Your task to perform on an android device: Search for seafood restaurants on Google Maps Image 0: 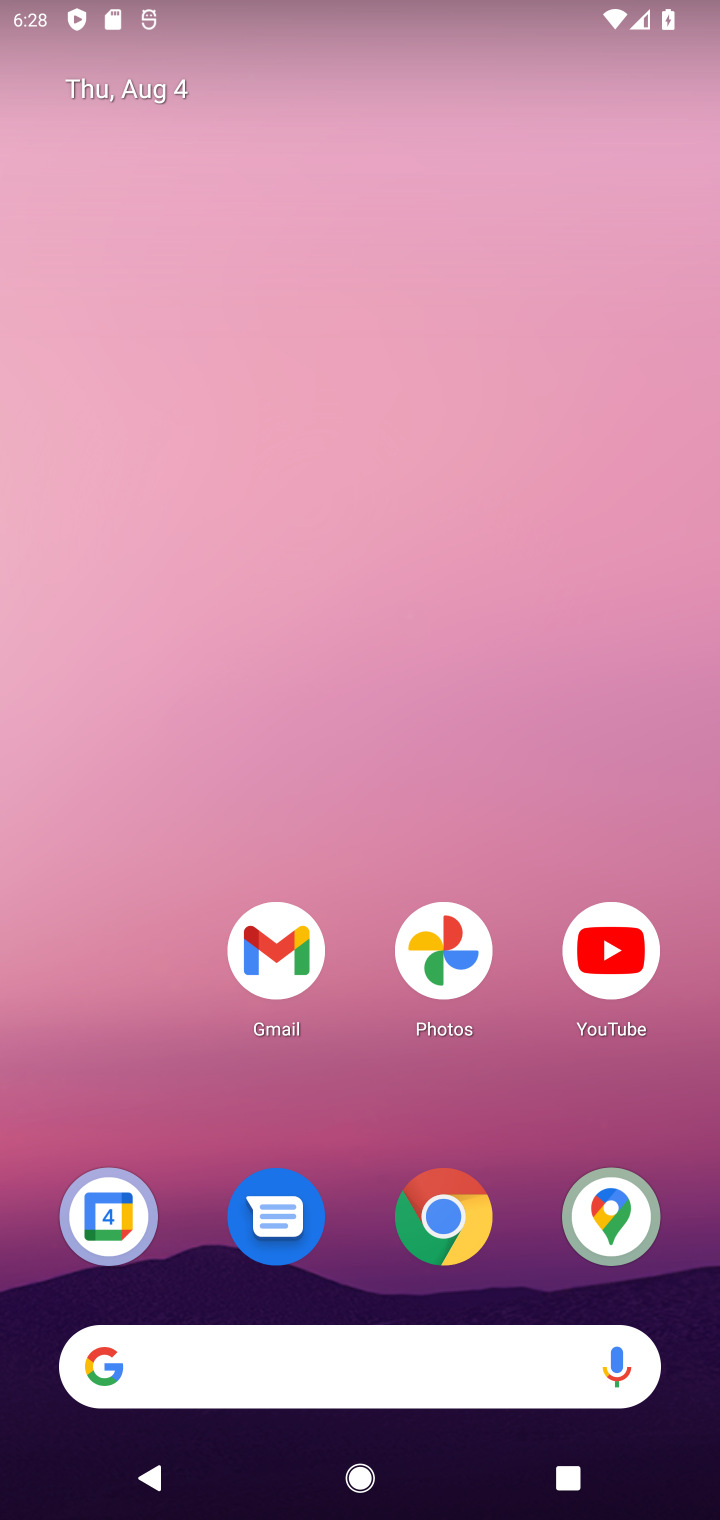
Step 0: click (612, 1246)
Your task to perform on an android device: Search for seafood restaurants on Google Maps Image 1: 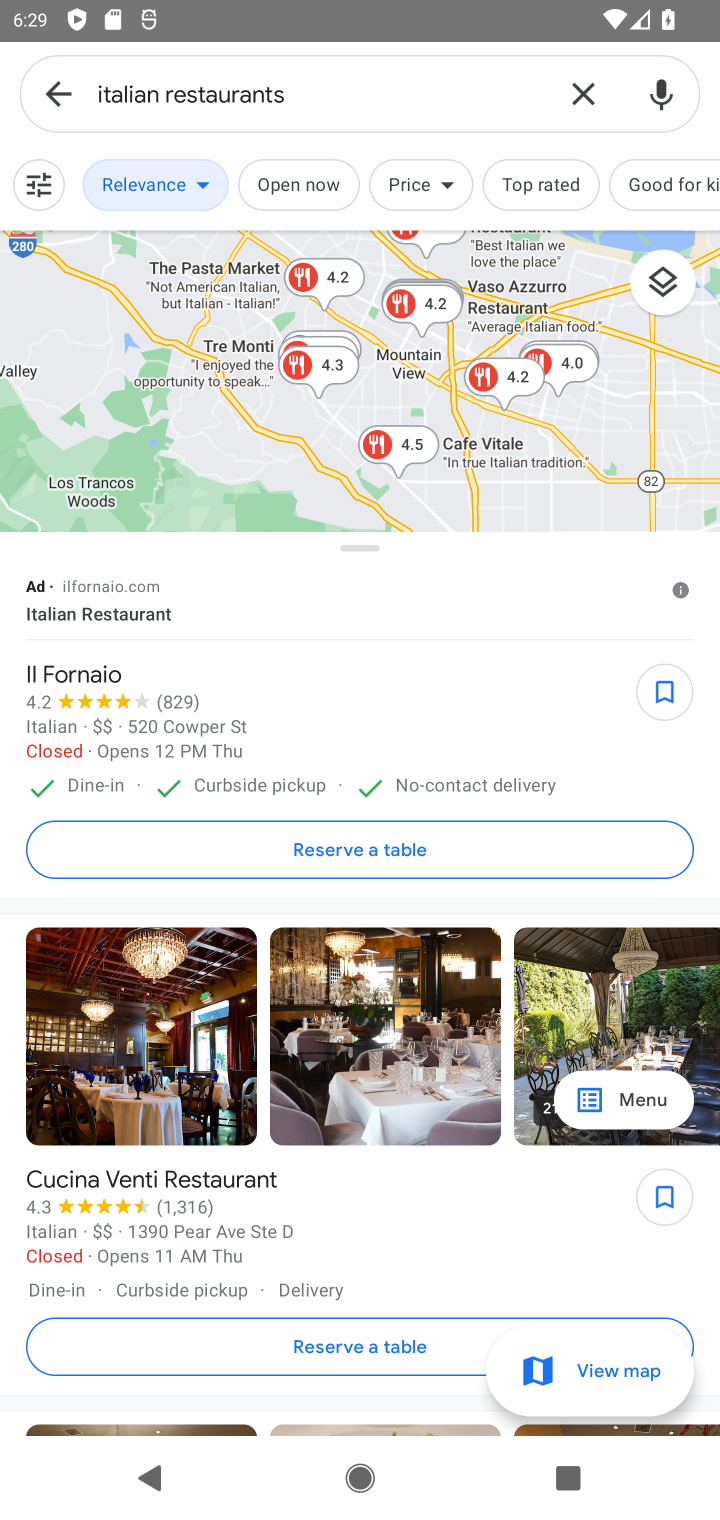
Step 1: task complete